Your task to perform on an android device: Toggle the flashlight Image 0: 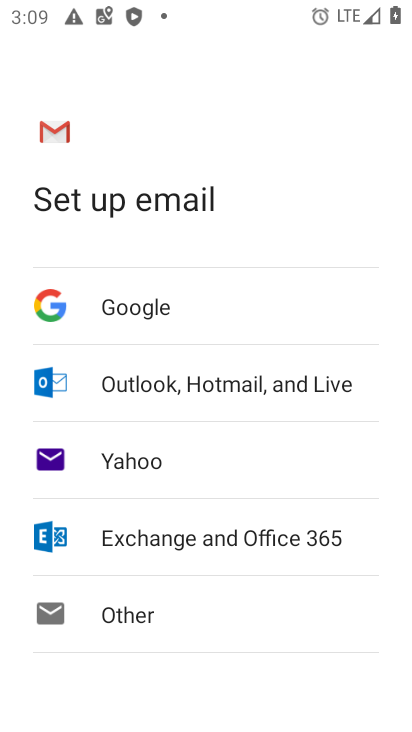
Step 0: press home button
Your task to perform on an android device: Toggle the flashlight Image 1: 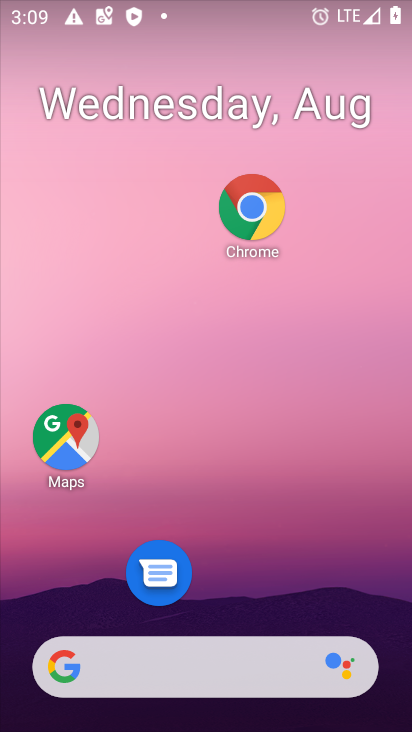
Step 1: task complete